Your task to perform on an android device: Open calendar and show me the second week of next month Image 0: 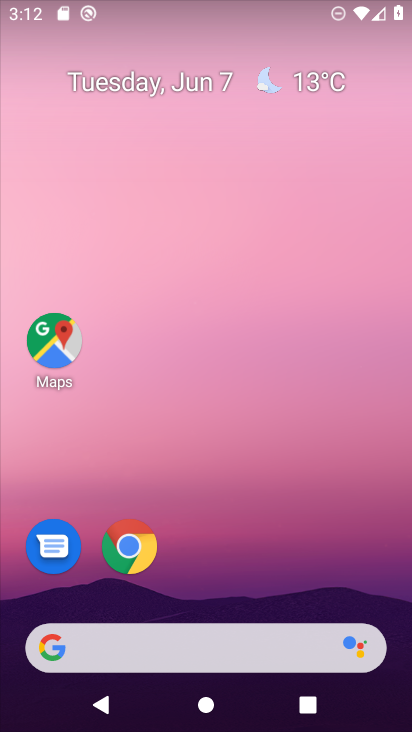
Step 0: drag from (114, 404) to (296, 153)
Your task to perform on an android device: Open calendar and show me the second week of next month Image 1: 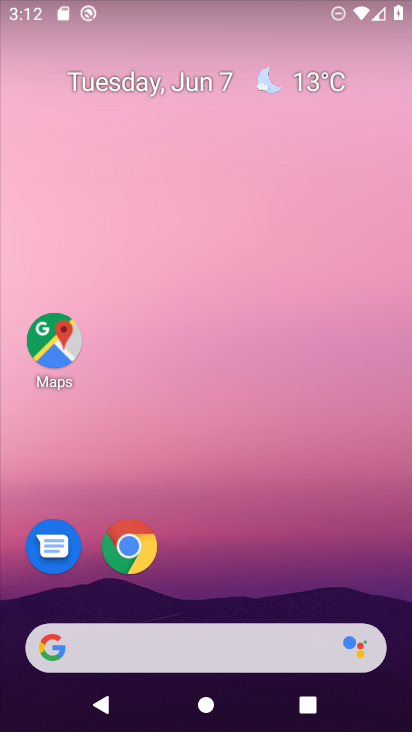
Step 1: drag from (21, 548) to (262, 82)
Your task to perform on an android device: Open calendar and show me the second week of next month Image 2: 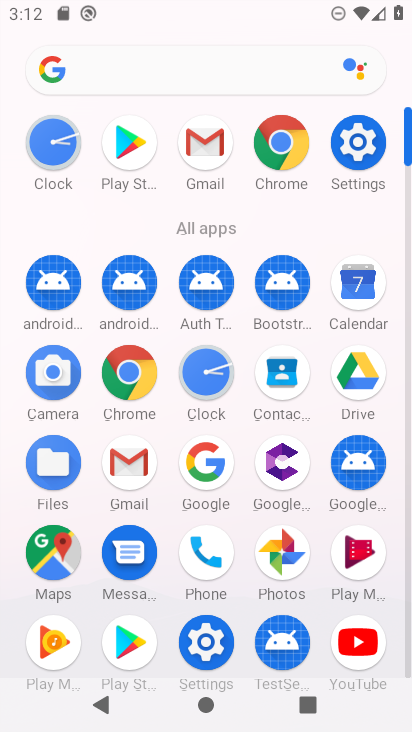
Step 2: click (328, 304)
Your task to perform on an android device: Open calendar and show me the second week of next month Image 3: 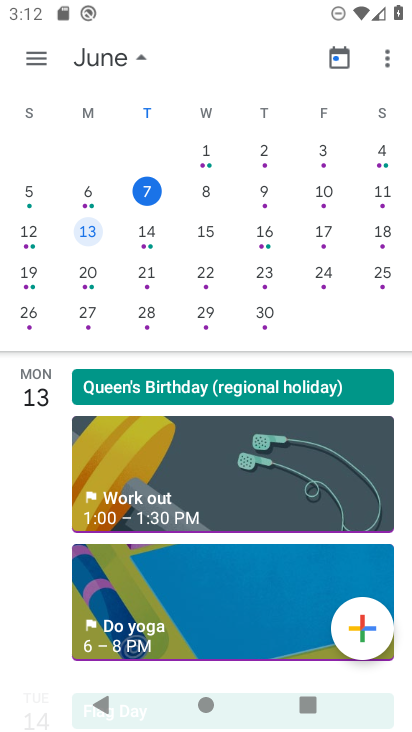
Step 3: drag from (393, 196) to (2, 139)
Your task to perform on an android device: Open calendar and show me the second week of next month Image 4: 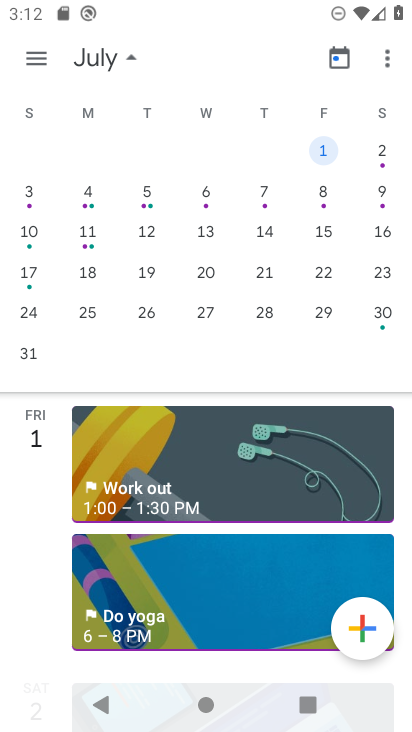
Step 4: click (88, 205)
Your task to perform on an android device: Open calendar and show me the second week of next month Image 5: 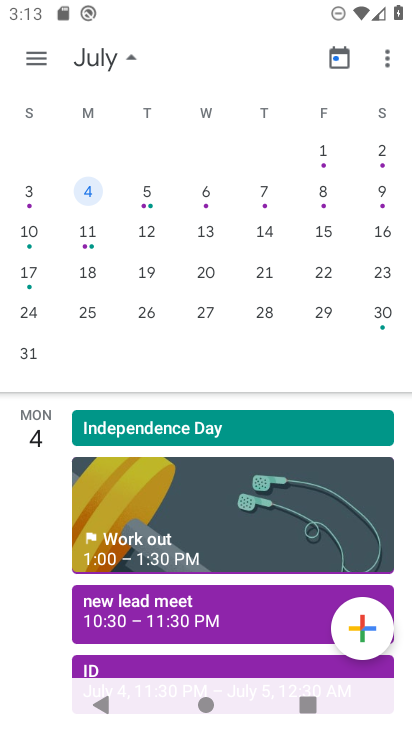
Step 5: task complete